Your task to perform on an android device: Open sound settings Image 0: 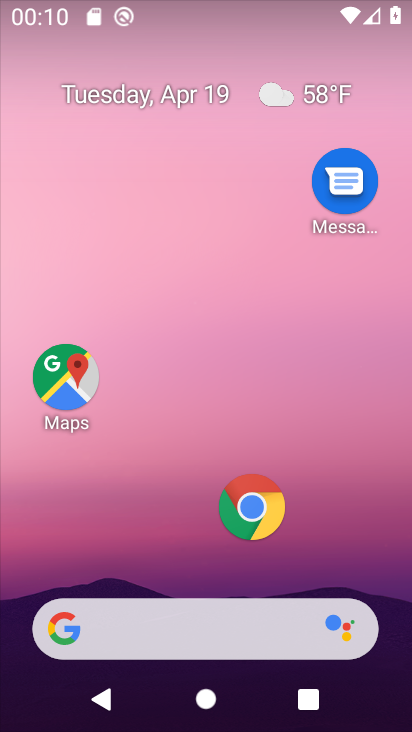
Step 0: drag from (173, 538) to (242, 8)
Your task to perform on an android device: Open sound settings Image 1: 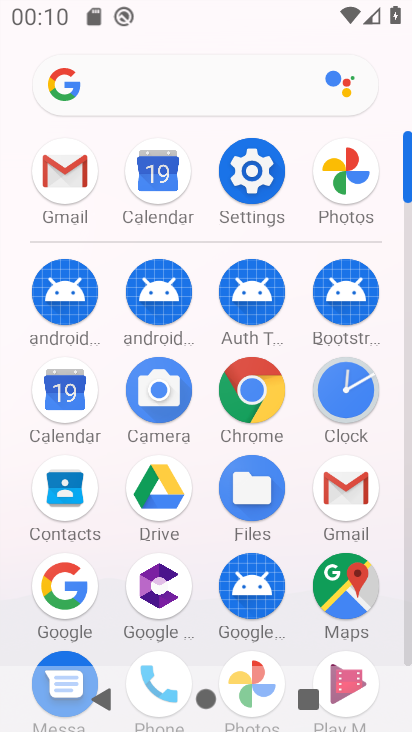
Step 1: click (245, 164)
Your task to perform on an android device: Open sound settings Image 2: 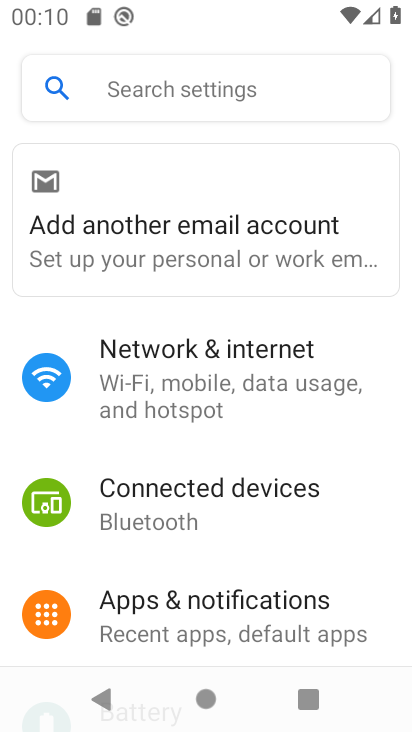
Step 2: drag from (182, 545) to (234, 182)
Your task to perform on an android device: Open sound settings Image 3: 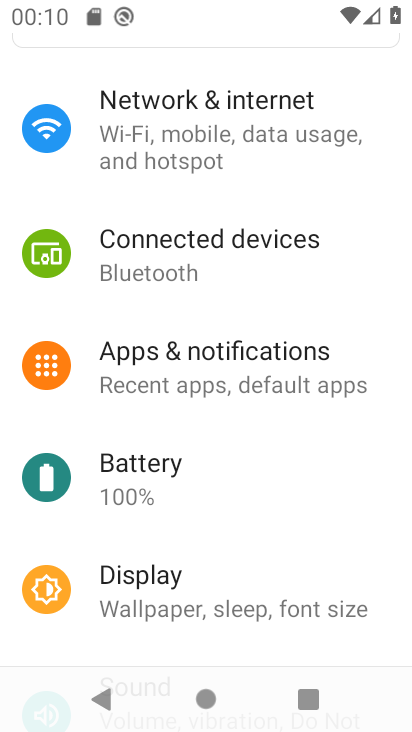
Step 3: drag from (184, 492) to (285, 136)
Your task to perform on an android device: Open sound settings Image 4: 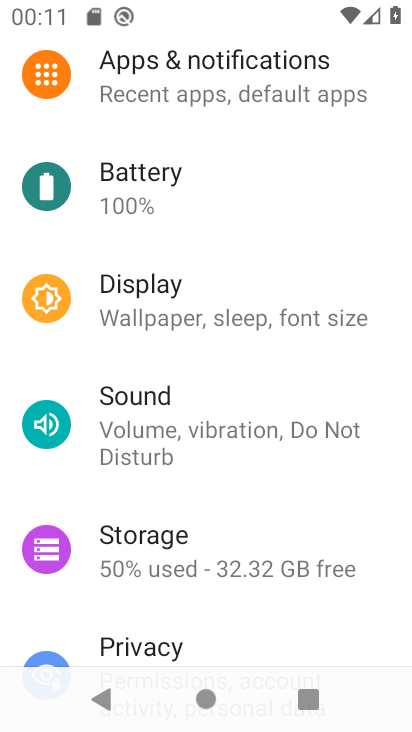
Step 4: click (187, 416)
Your task to perform on an android device: Open sound settings Image 5: 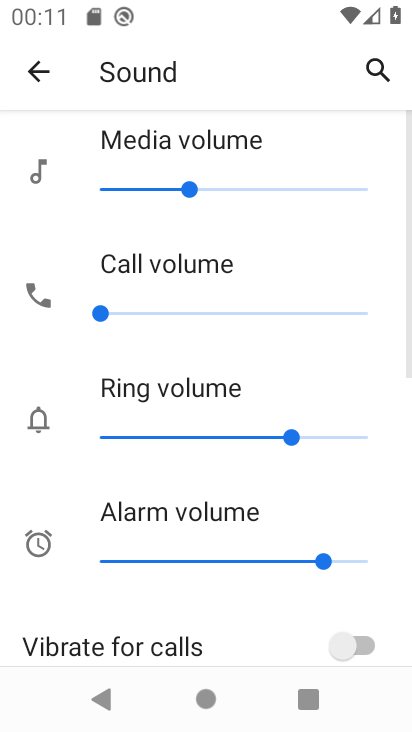
Step 5: task complete